Your task to perform on an android device: Open Google Chrome Image 0: 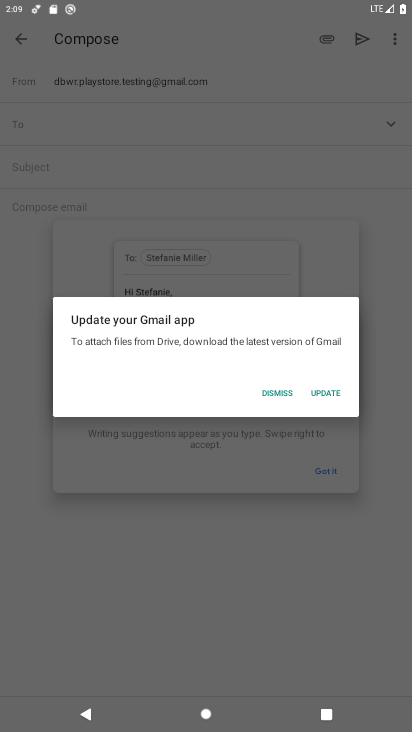
Step 0: press home button
Your task to perform on an android device: Open Google Chrome Image 1: 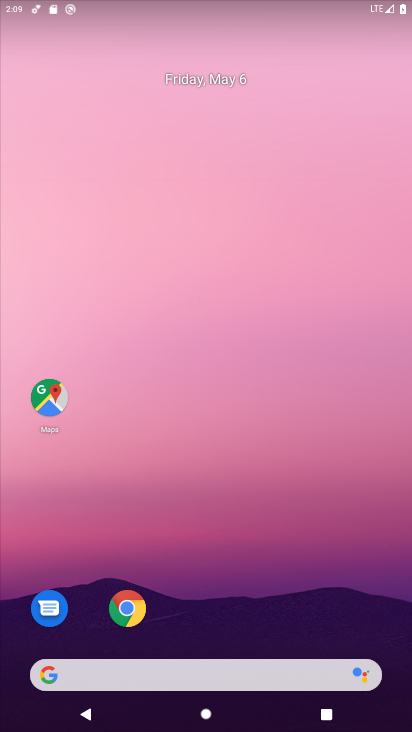
Step 1: click (129, 602)
Your task to perform on an android device: Open Google Chrome Image 2: 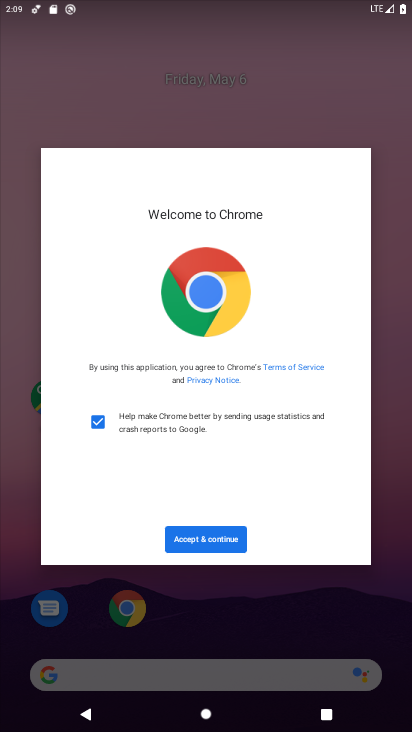
Step 2: click (213, 545)
Your task to perform on an android device: Open Google Chrome Image 3: 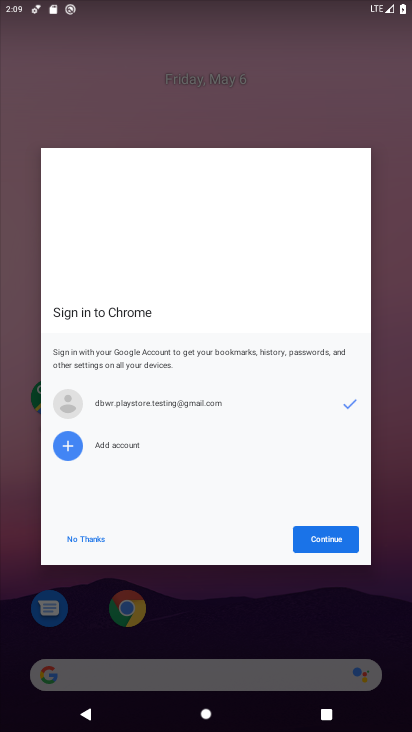
Step 3: click (321, 540)
Your task to perform on an android device: Open Google Chrome Image 4: 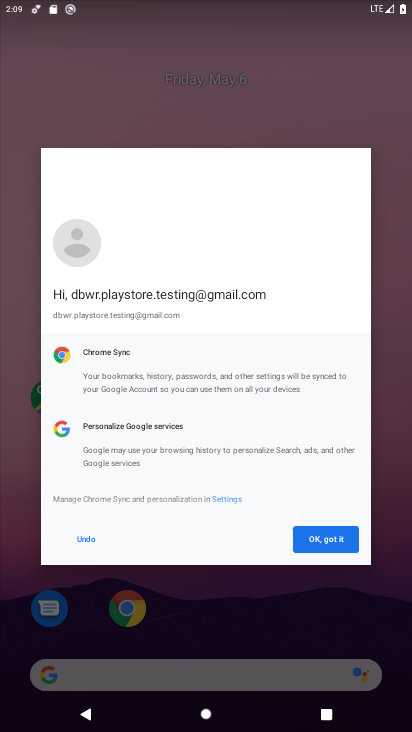
Step 4: click (321, 540)
Your task to perform on an android device: Open Google Chrome Image 5: 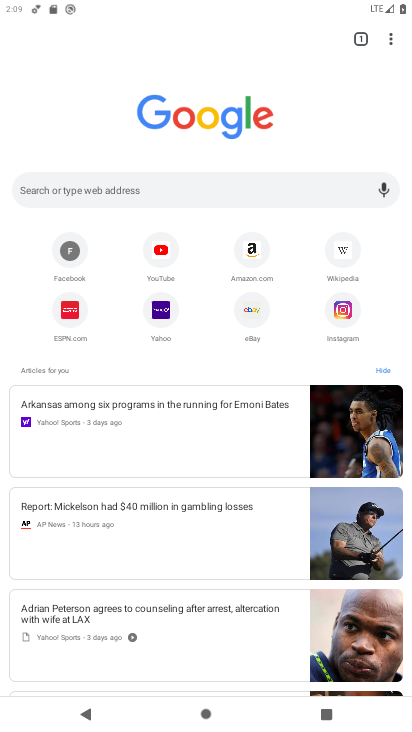
Step 5: task complete